Your task to perform on an android device: set an alarm Image 0: 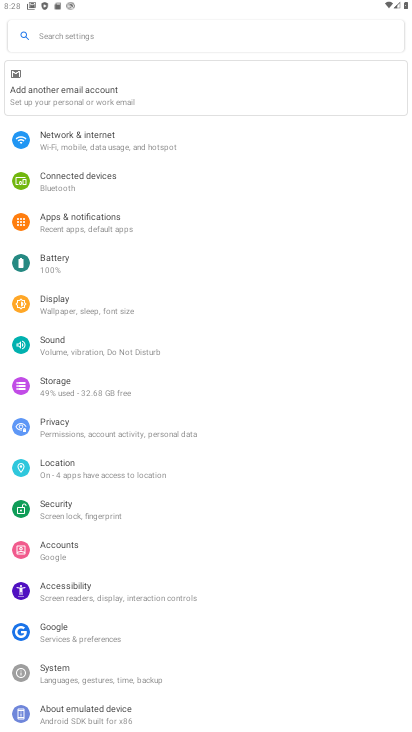
Step 0: press home button
Your task to perform on an android device: set an alarm Image 1: 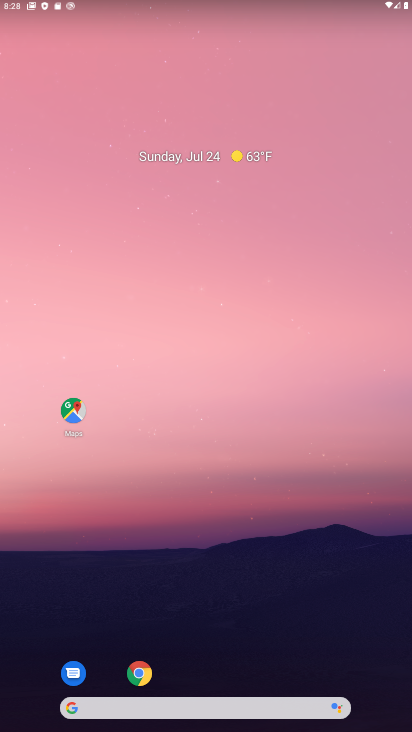
Step 1: drag from (212, 691) to (146, 41)
Your task to perform on an android device: set an alarm Image 2: 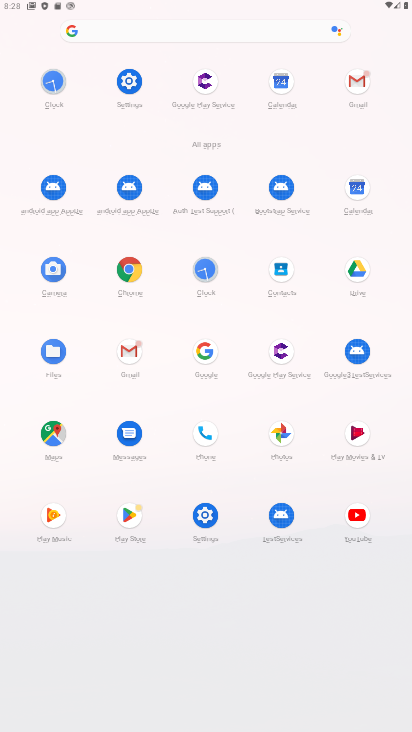
Step 2: click (210, 263)
Your task to perform on an android device: set an alarm Image 3: 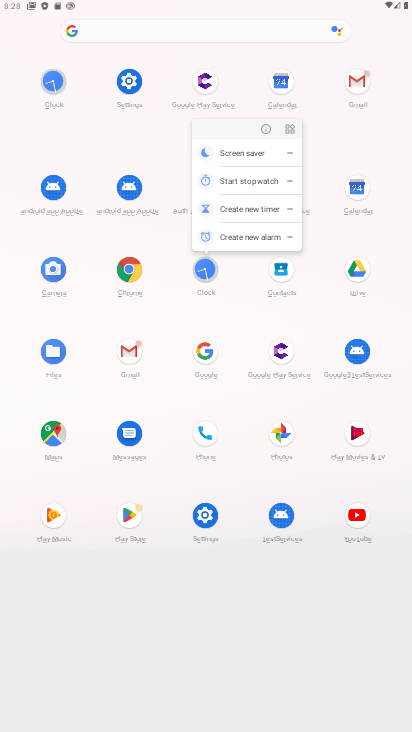
Step 3: click (207, 284)
Your task to perform on an android device: set an alarm Image 4: 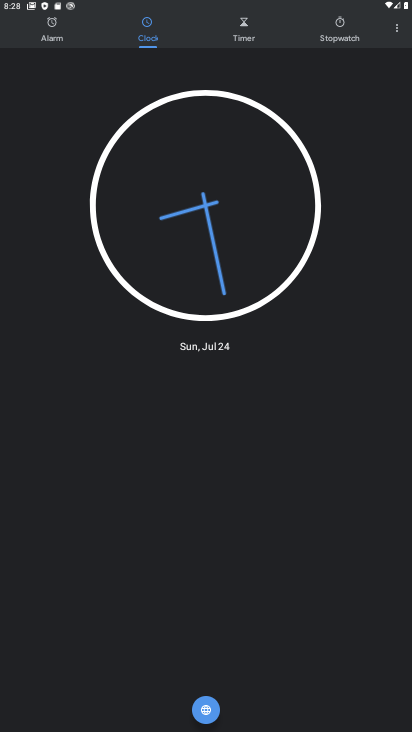
Step 4: click (60, 46)
Your task to perform on an android device: set an alarm Image 5: 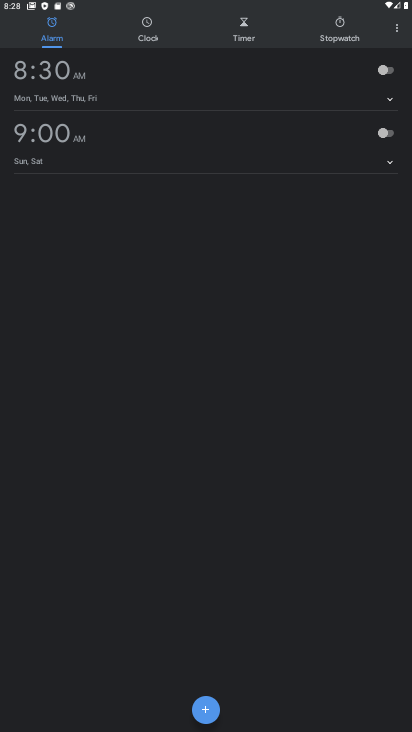
Step 5: click (204, 718)
Your task to perform on an android device: set an alarm Image 6: 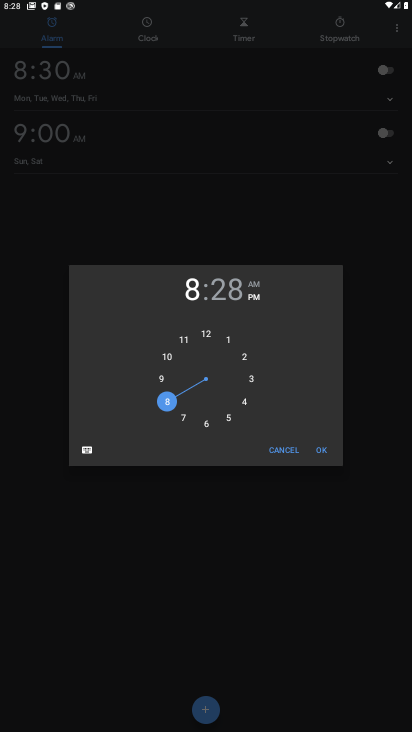
Step 6: click (324, 449)
Your task to perform on an android device: set an alarm Image 7: 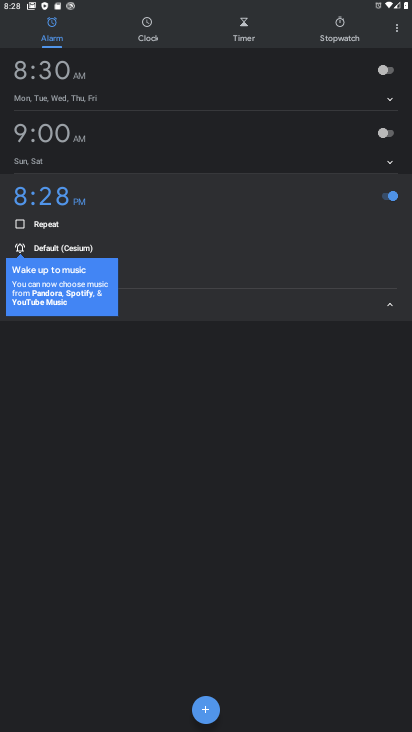
Step 7: task complete